Your task to perform on an android device: Go to network settings Image 0: 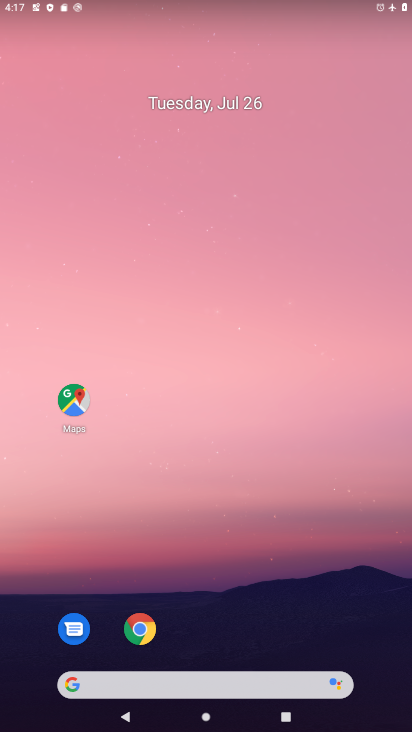
Step 0: drag from (229, 720) to (230, 101)
Your task to perform on an android device: Go to network settings Image 1: 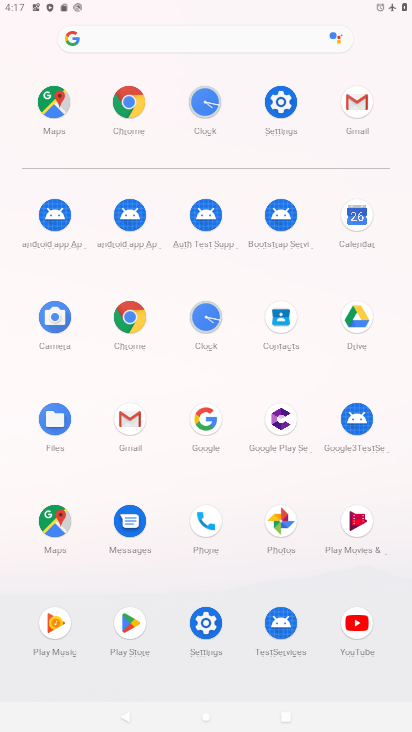
Step 1: click (287, 100)
Your task to perform on an android device: Go to network settings Image 2: 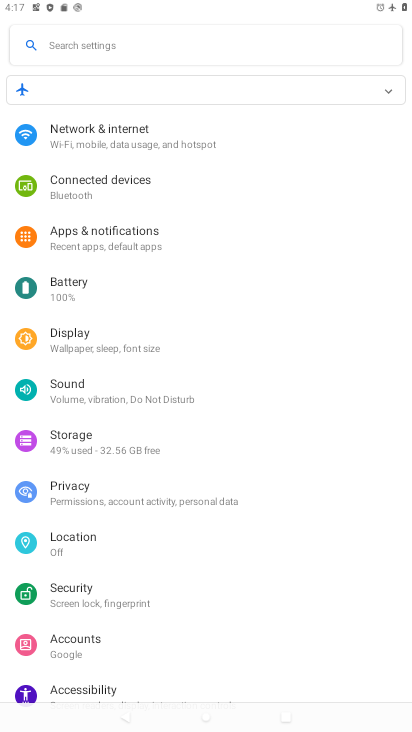
Step 2: click (84, 135)
Your task to perform on an android device: Go to network settings Image 3: 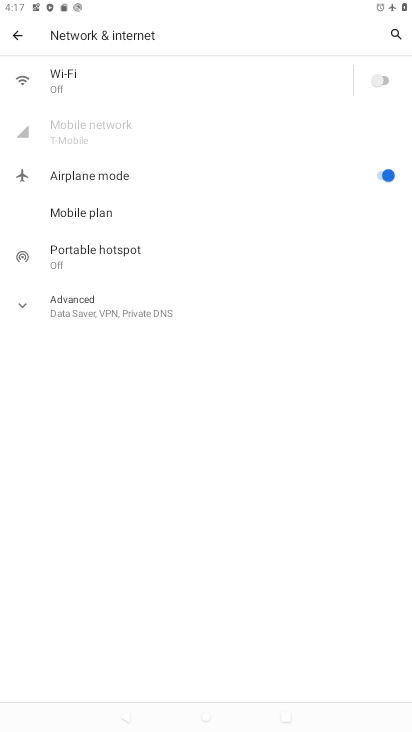
Step 3: click (386, 168)
Your task to perform on an android device: Go to network settings Image 4: 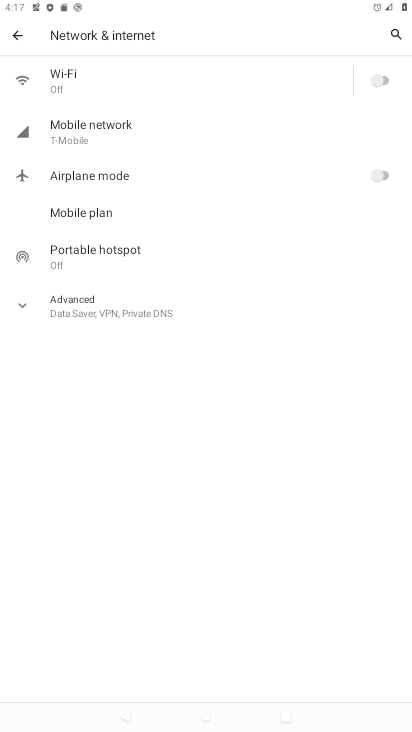
Step 4: click (91, 128)
Your task to perform on an android device: Go to network settings Image 5: 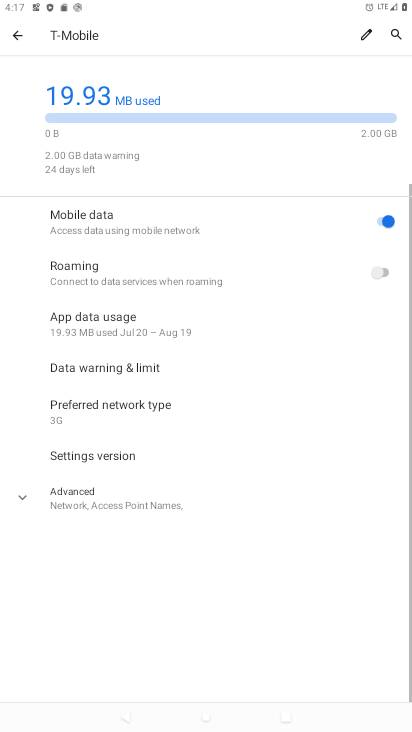
Step 5: task complete